Your task to perform on an android device: Open ESPN.com Image 0: 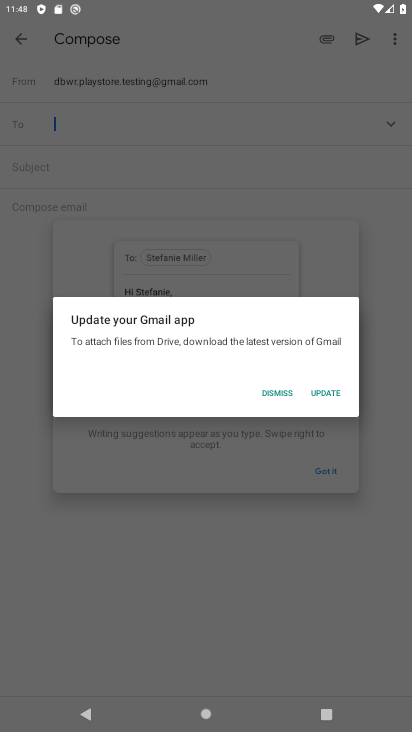
Step 0: press home button
Your task to perform on an android device: Open ESPN.com Image 1: 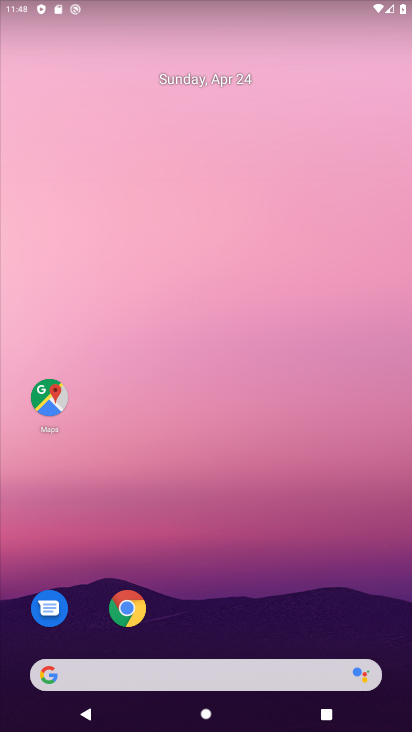
Step 1: click (123, 606)
Your task to perform on an android device: Open ESPN.com Image 2: 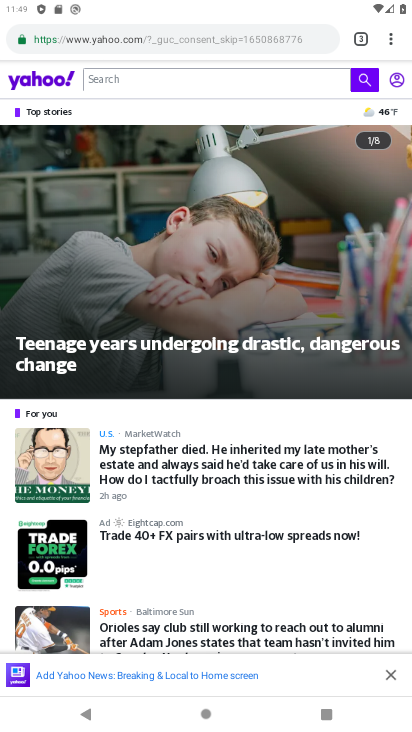
Step 2: drag from (392, 37) to (297, 67)
Your task to perform on an android device: Open ESPN.com Image 3: 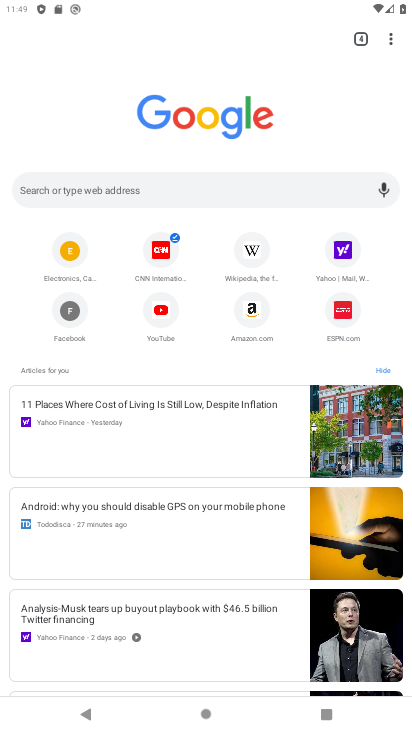
Step 3: click (157, 190)
Your task to perform on an android device: Open ESPN.com Image 4: 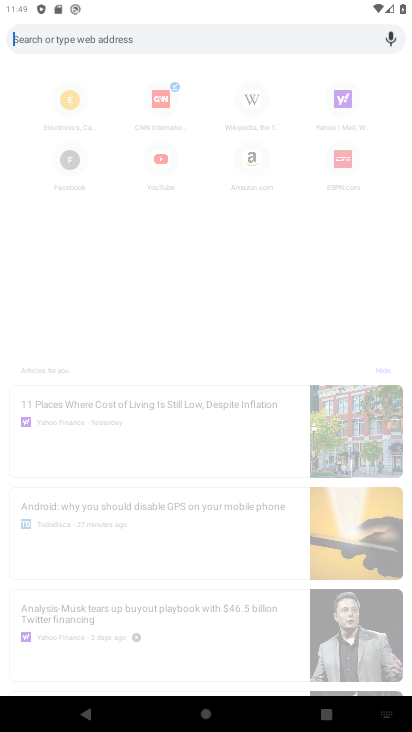
Step 4: type "ESPN.com"
Your task to perform on an android device: Open ESPN.com Image 5: 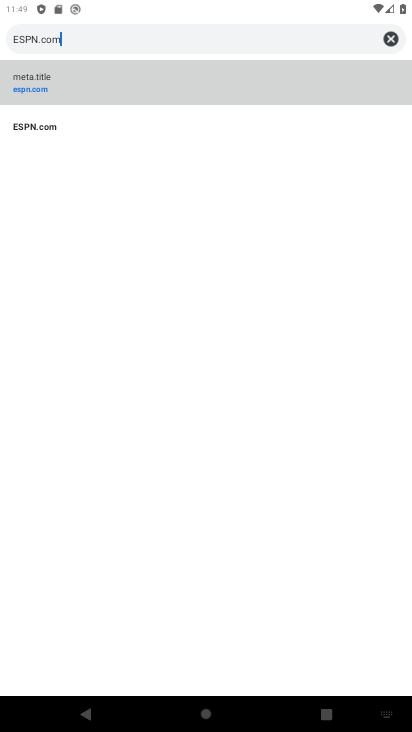
Step 5: click (95, 87)
Your task to perform on an android device: Open ESPN.com Image 6: 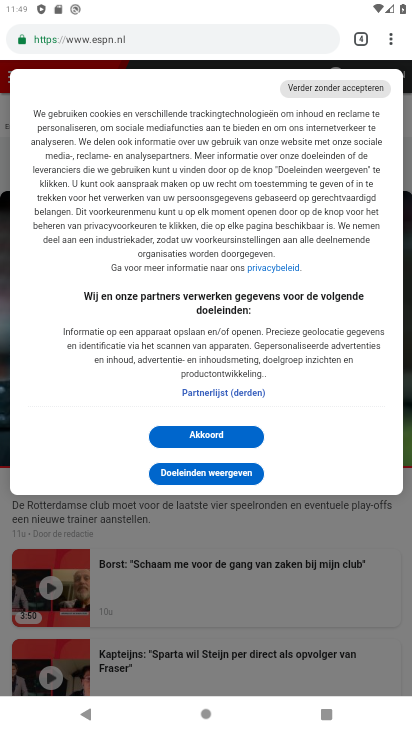
Step 6: task complete